Your task to perform on an android device: Check the news Image 0: 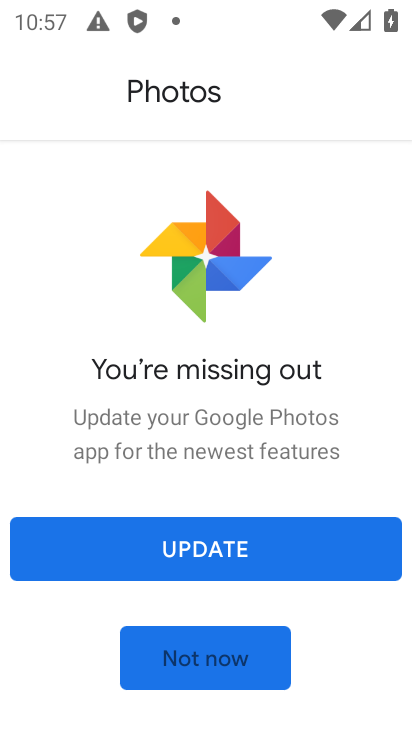
Step 0: click (206, 671)
Your task to perform on an android device: Check the news Image 1: 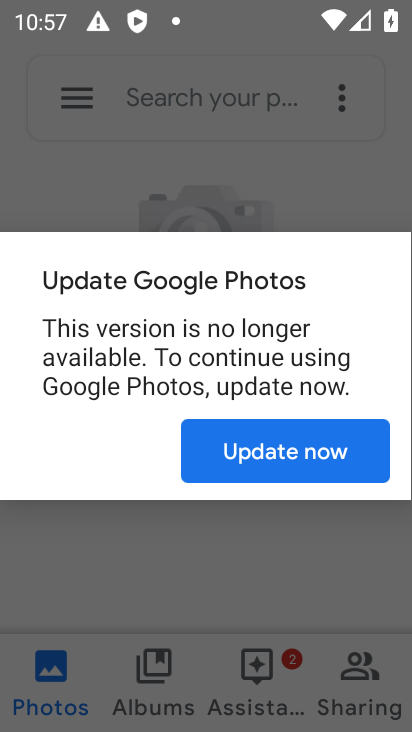
Step 1: click (221, 153)
Your task to perform on an android device: Check the news Image 2: 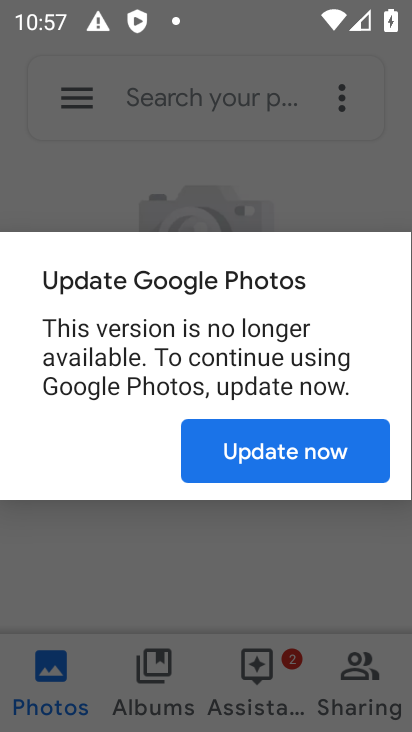
Step 2: click (222, 153)
Your task to perform on an android device: Check the news Image 3: 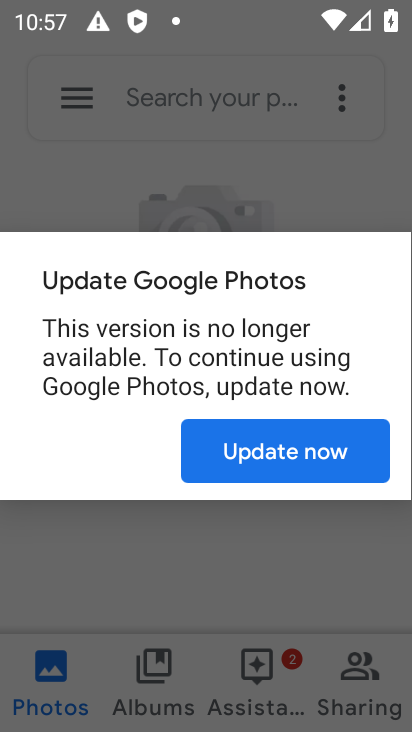
Step 3: press back button
Your task to perform on an android device: Check the news Image 4: 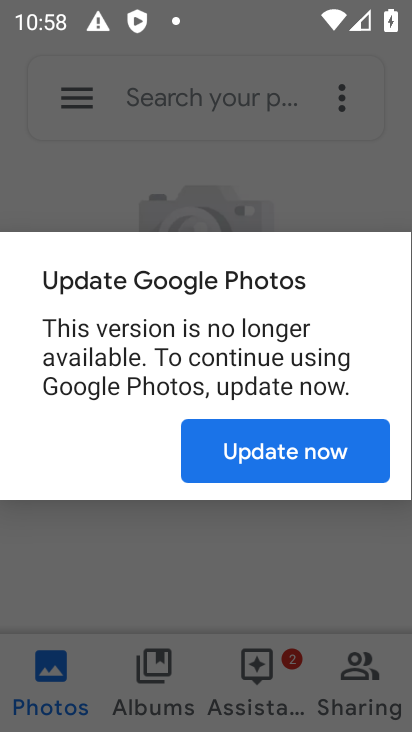
Step 4: click (256, 173)
Your task to perform on an android device: Check the news Image 5: 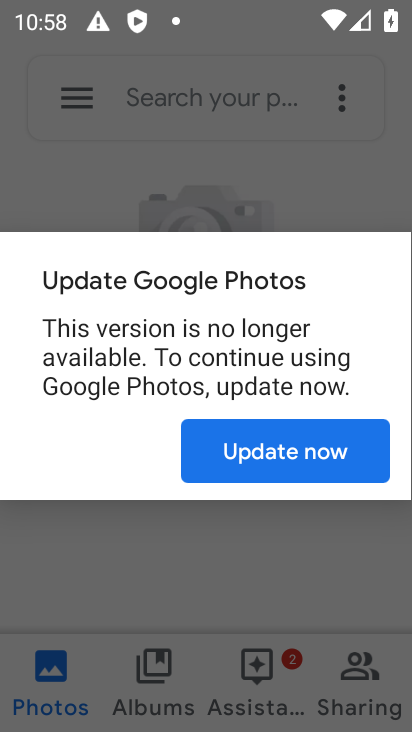
Step 5: click (260, 167)
Your task to perform on an android device: Check the news Image 6: 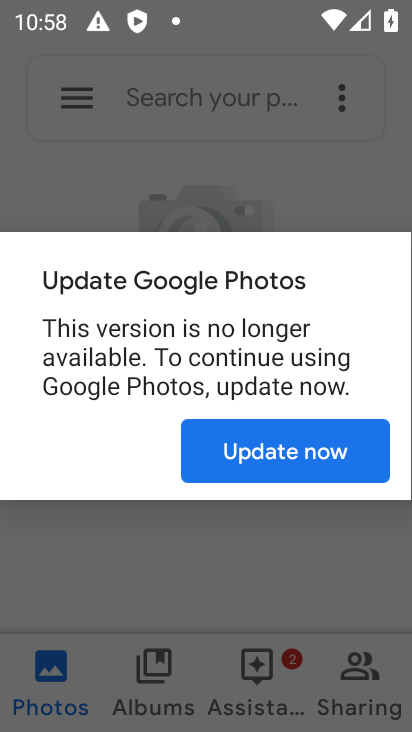
Step 6: click (273, 183)
Your task to perform on an android device: Check the news Image 7: 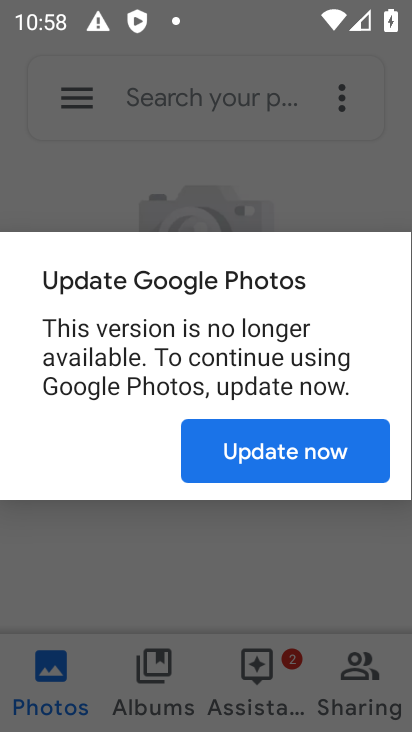
Step 7: click (258, 208)
Your task to perform on an android device: Check the news Image 8: 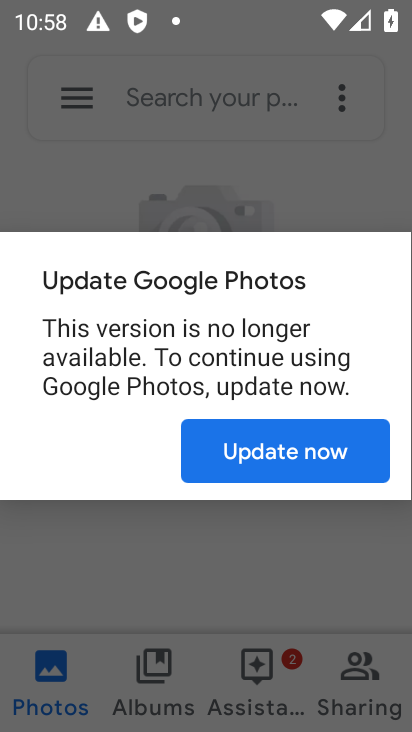
Step 8: click (267, 193)
Your task to perform on an android device: Check the news Image 9: 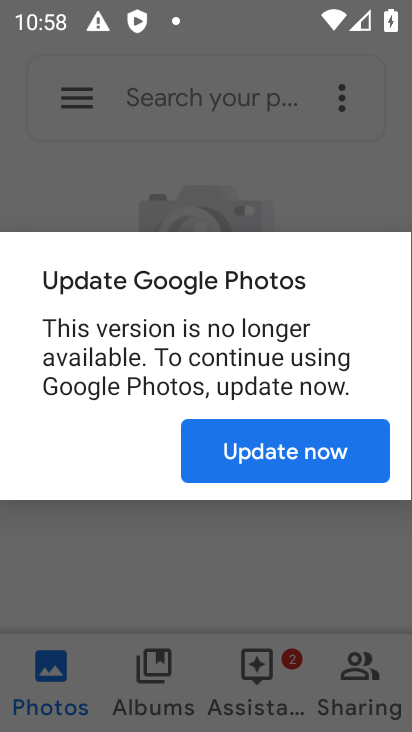
Step 9: click (270, 193)
Your task to perform on an android device: Check the news Image 10: 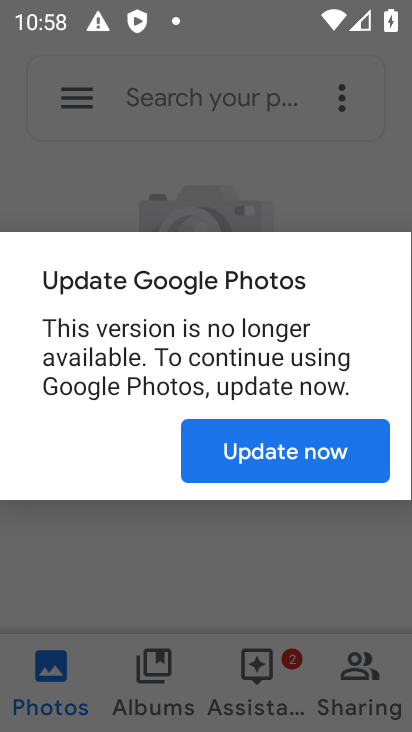
Step 10: click (274, 194)
Your task to perform on an android device: Check the news Image 11: 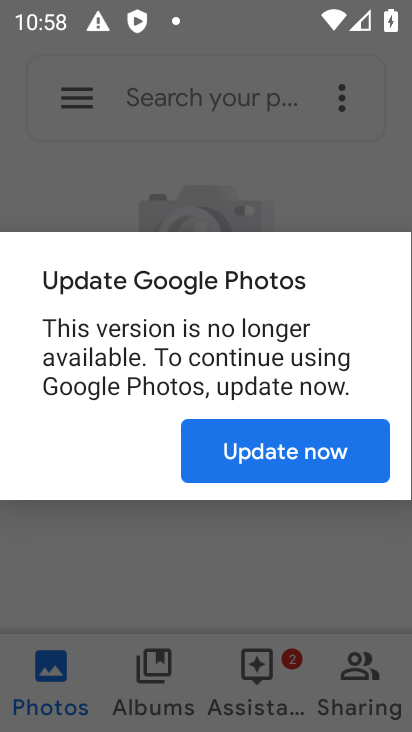
Step 11: click (283, 190)
Your task to perform on an android device: Check the news Image 12: 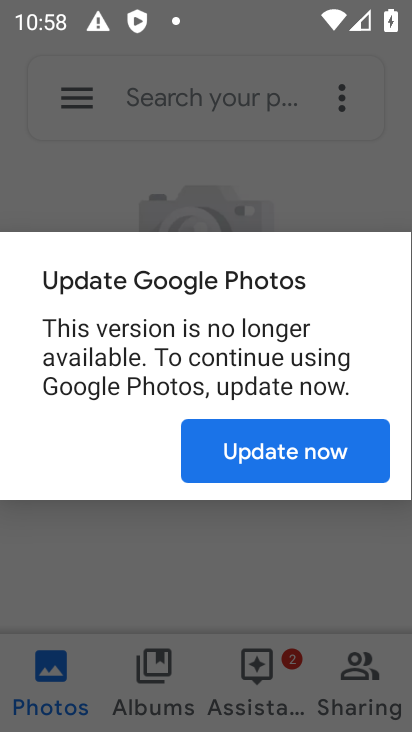
Step 12: click (339, 599)
Your task to perform on an android device: Check the news Image 13: 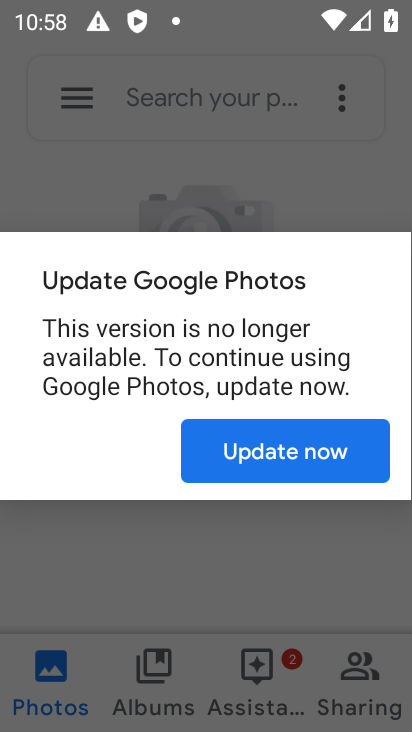
Step 13: press back button
Your task to perform on an android device: Check the news Image 14: 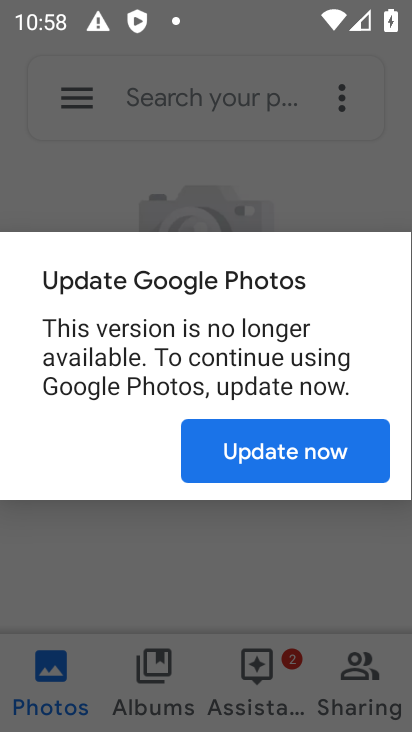
Step 14: press back button
Your task to perform on an android device: Check the news Image 15: 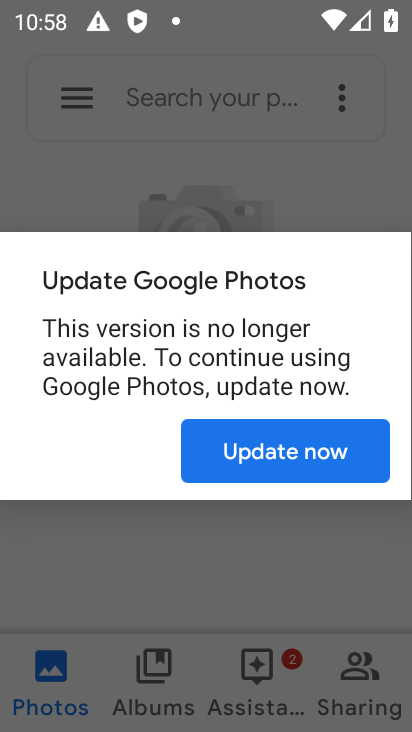
Step 15: press back button
Your task to perform on an android device: Check the news Image 16: 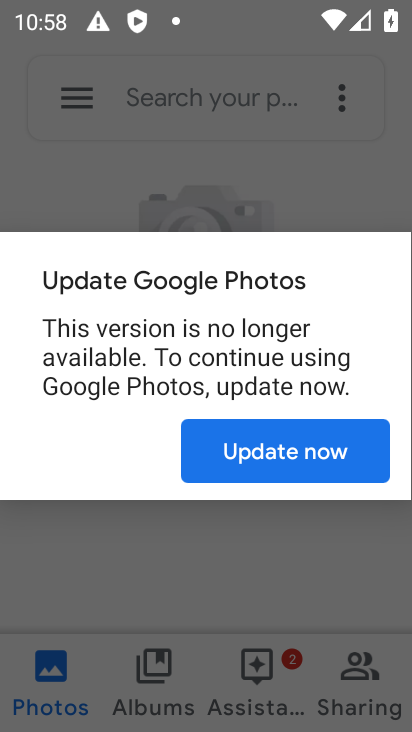
Step 16: press back button
Your task to perform on an android device: Check the news Image 17: 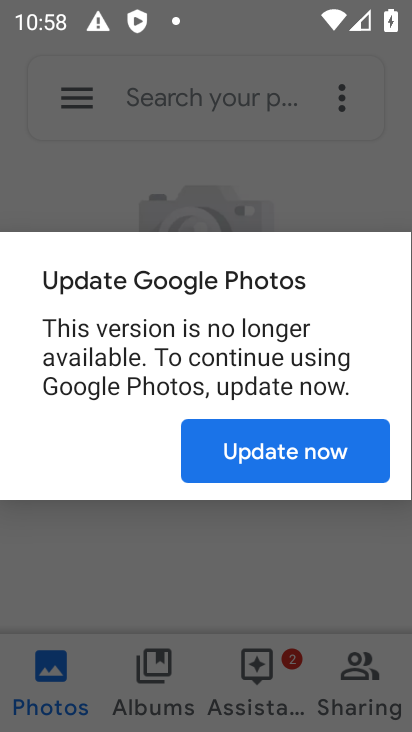
Step 17: press home button
Your task to perform on an android device: Check the news Image 18: 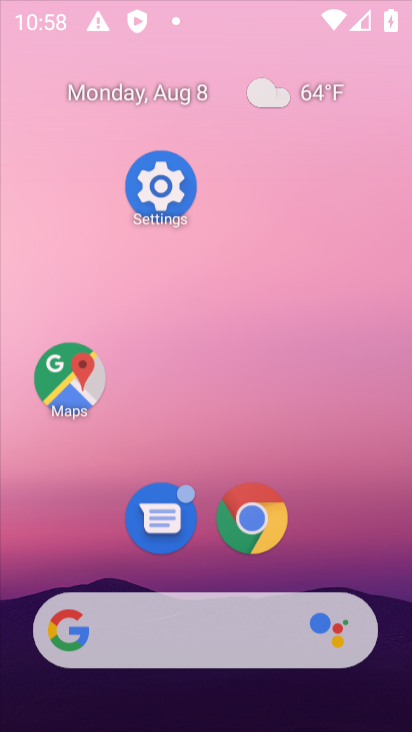
Step 18: press back button
Your task to perform on an android device: Check the news Image 19: 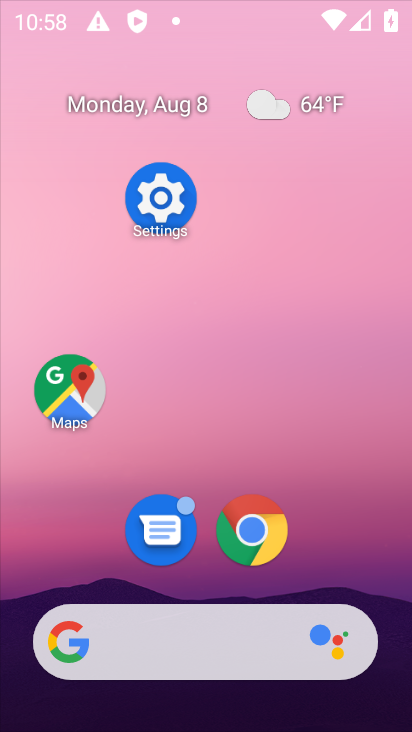
Step 19: press back button
Your task to perform on an android device: Check the news Image 20: 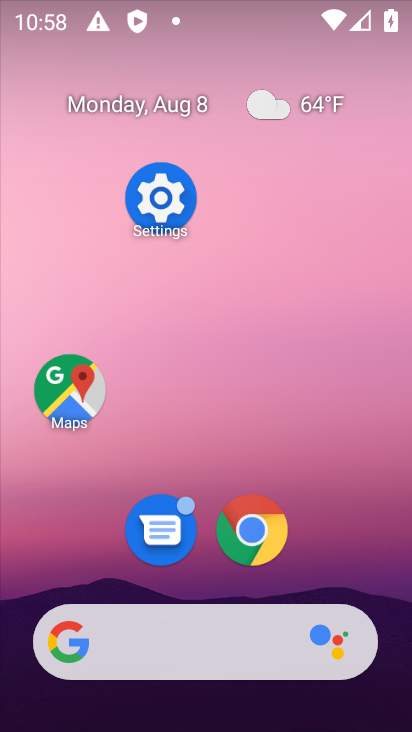
Step 20: drag from (165, 261) to (150, 164)
Your task to perform on an android device: Check the news Image 21: 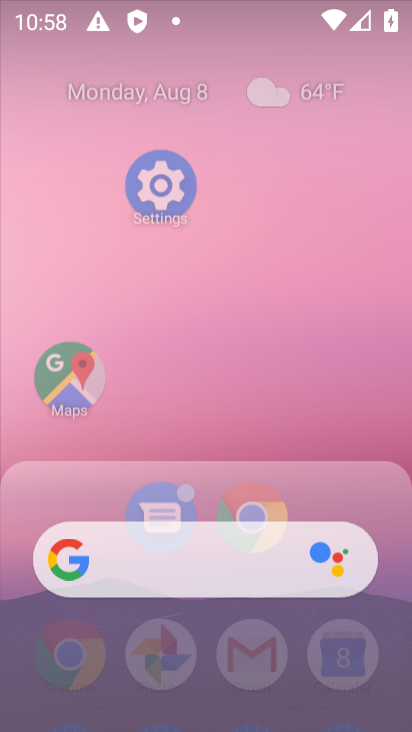
Step 21: drag from (240, 423) to (240, 70)
Your task to perform on an android device: Check the news Image 22: 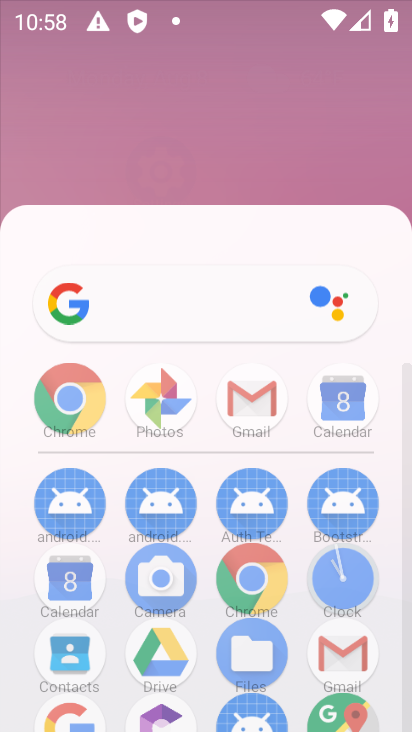
Step 22: drag from (302, 548) to (285, 228)
Your task to perform on an android device: Check the news Image 23: 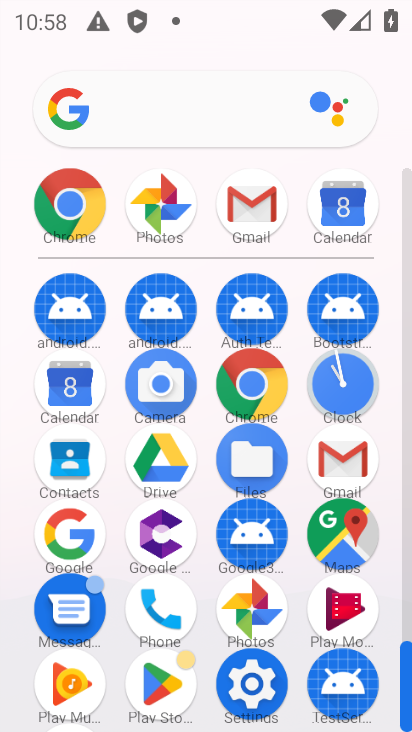
Step 23: click (77, 203)
Your task to perform on an android device: Check the news Image 24: 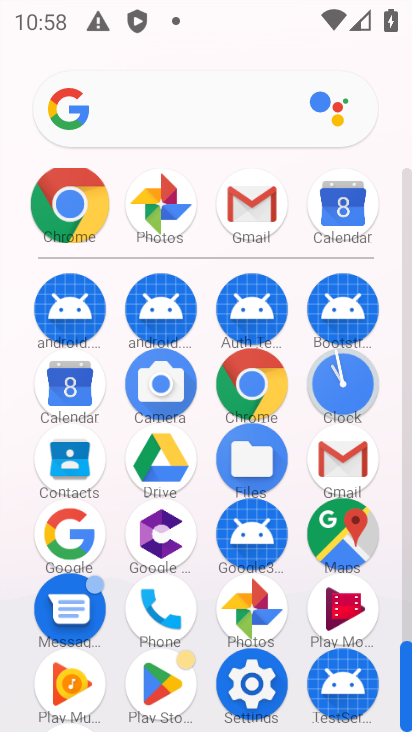
Step 24: click (77, 203)
Your task to perform on an android device: Check the news Image 25: 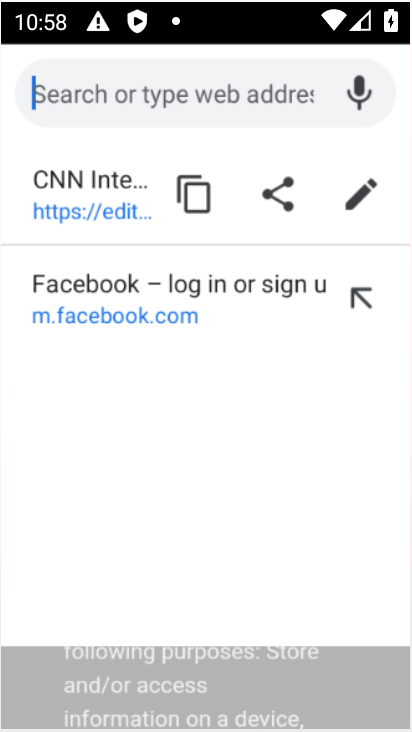
Step 25: click (76, 202)
Your task to perform on an android device: Check the news Image 26: 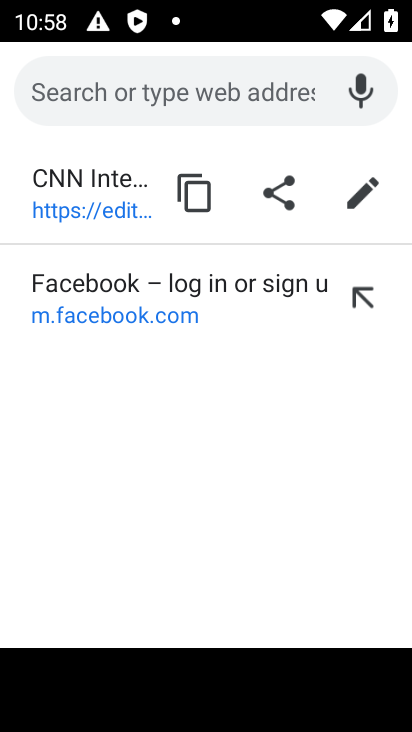
Step 26: press back button
Your task to perform on an android device: Check the news Image 27: 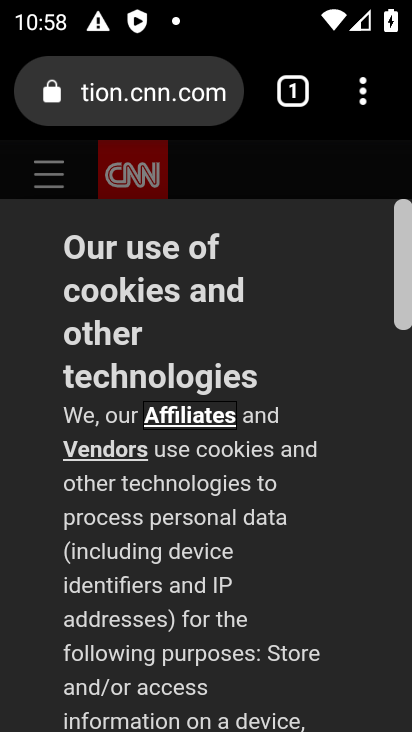
Step 27: click (365, 97)
Your task to perform on an android device: Check the news Image 28: 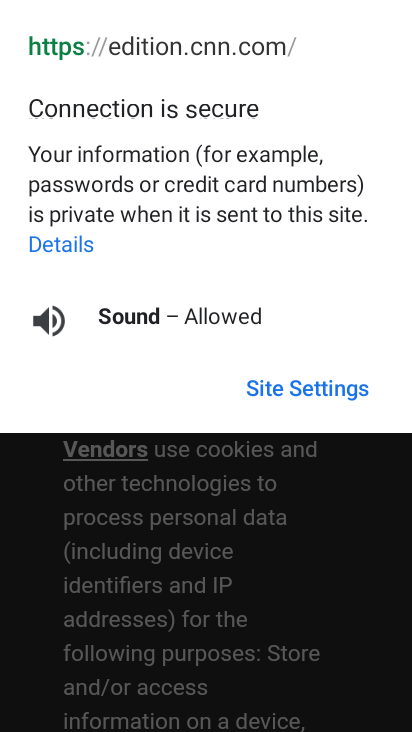
Step 28: press back button
Your task to perform on an android device: Check the news Image 29: 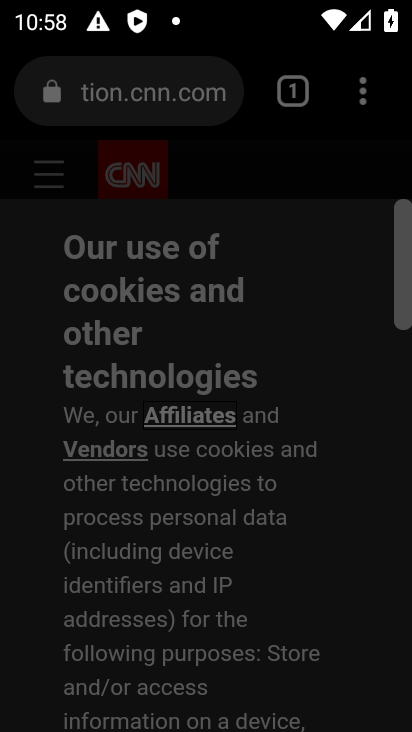
Step 29: press back button
Your task to perform on an android device: Check the news Image 30: 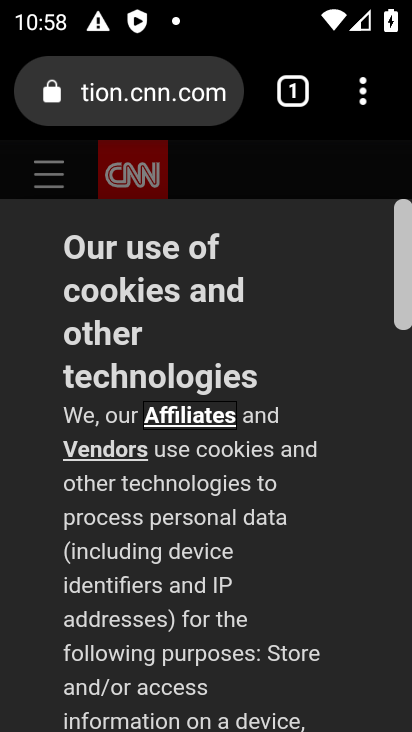
Step 30: press back button
Your task to perform on an android device: Check the news Image 31: 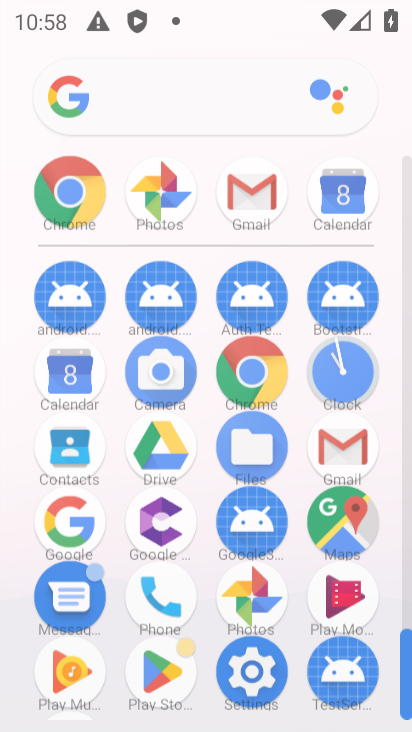
Step 31: drag from (370, 90) to (342, 164)
Your task to perform on an android device: Check the news Image 32: 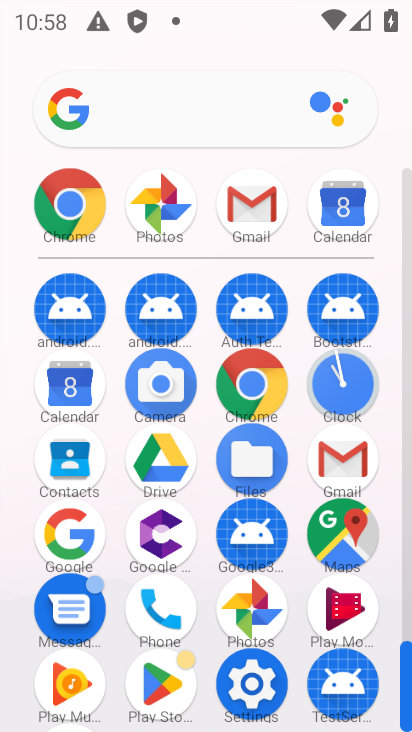
Step 32: click (55, 201)
Your task to perform on an android device: Check the news Image 33: 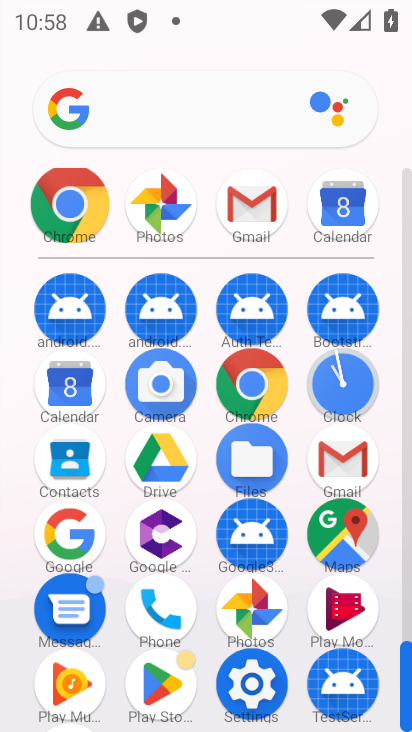
Step 33: click (55, 201)
Your task to perform on an android device: Check the news Image 34: 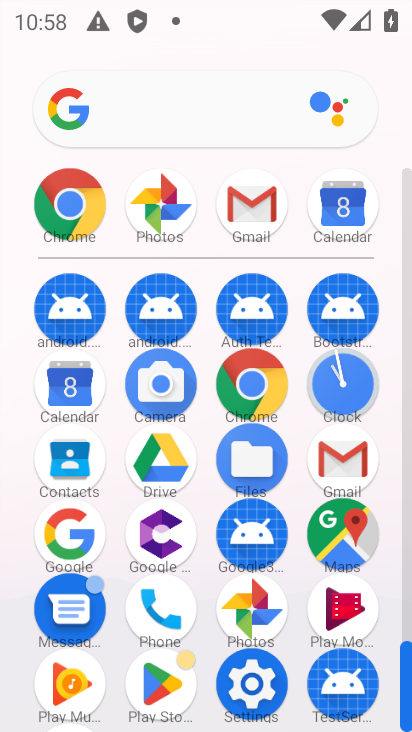
Step 34: click (61, 204)
Your task to perform on an android device: Check the news Image 35: 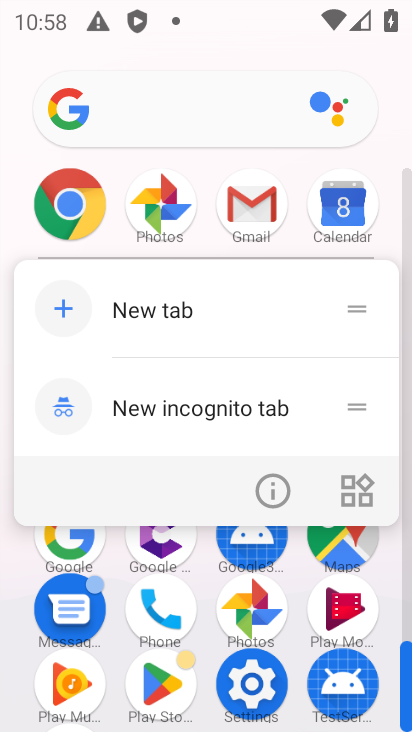
Step 35: click (150, 318)
Your task to perform on an android device: Check the news Image 36: 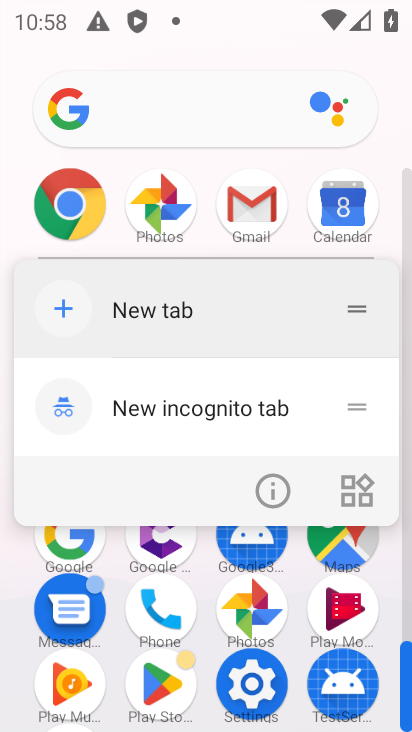
Step 36: click (158, 311)
Your task to perform on an android device: Check the news Image 37: 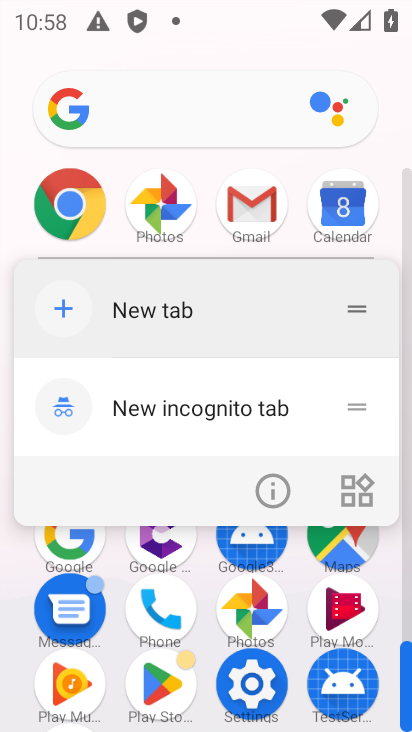
Step 37: click (159, 311)
Your task to perform on an android device: Check the news Image 38: 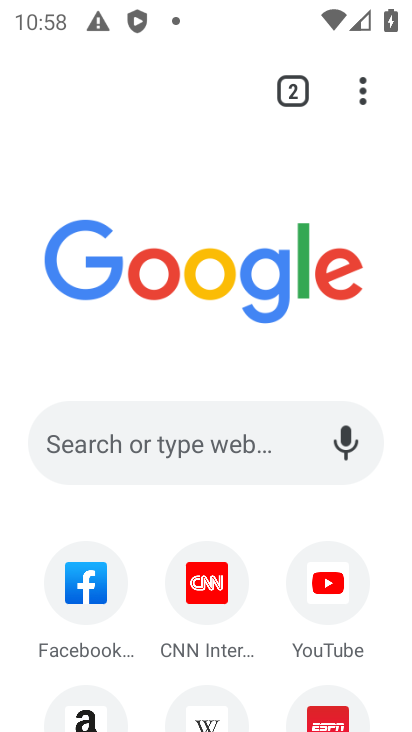
Step 38: task complete